Your task to perform on an android device: turn off javascript in the chrome app Image 0: 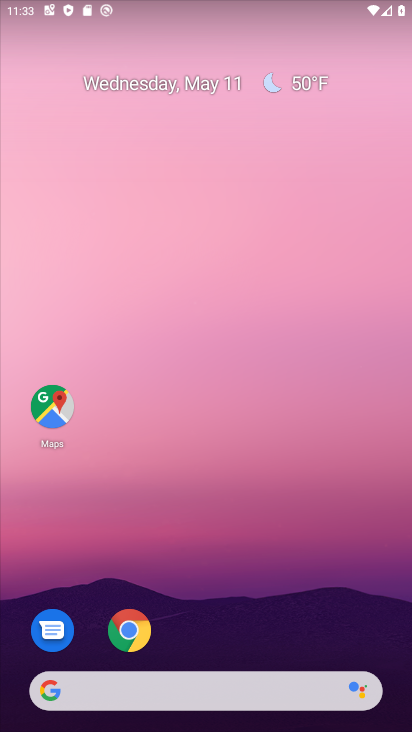
Step 0: click (134, 645)
Your task to perform on an android device: turn off javascript in the chrome app Image 1: 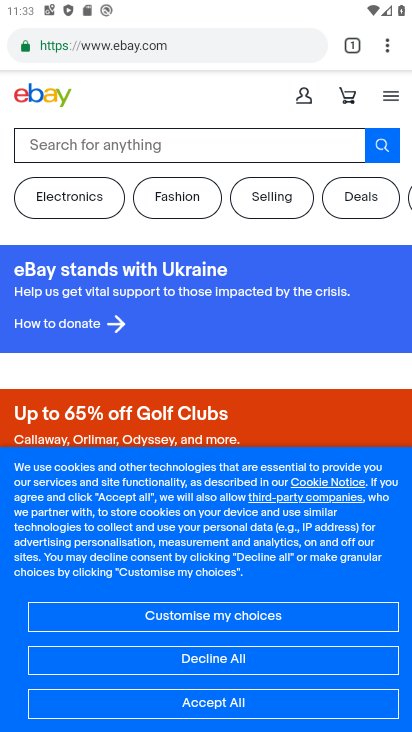
Step 1: click (388, 50)
Your task to perform on an android device: turn off javascript in the chrome app Image 2: 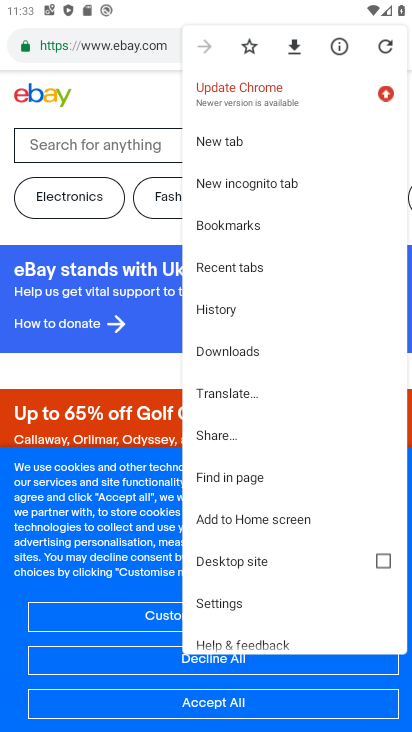
Step 2: click (224, 602)
Your task to perform on an android device: turn off javascript in the chrome app Image 3: 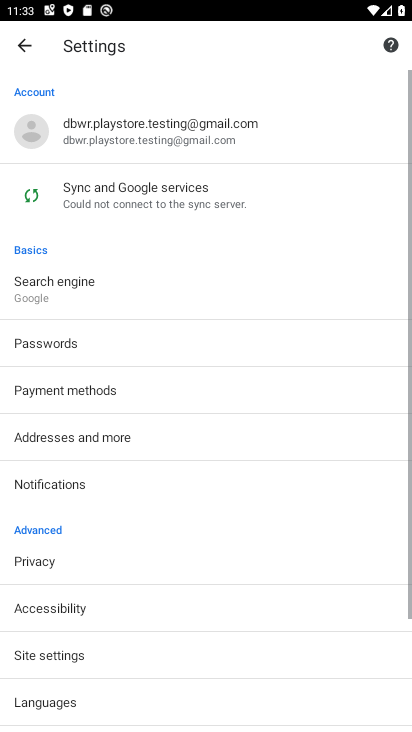
Step 3: drag from (196, 668) to (198, 419)
Your task to perform on an android device: turn off javascript in the chrome app Image 4: 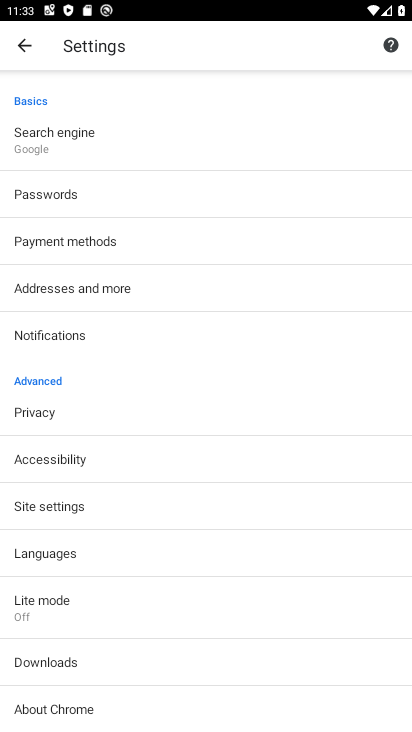
Step 4: click (63, 505)
Your task to perform on an android device: turn off javascript in the chrome app Image 5: 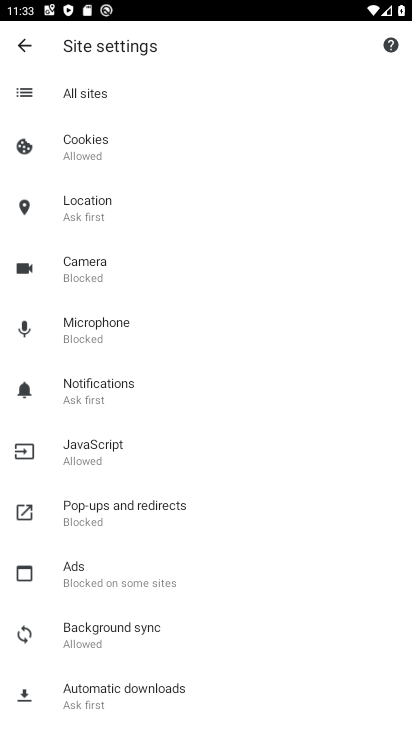
Step 5: click (87, 450)
Your task to perform on an android device: turn off javascript in the chrome app Image 6: 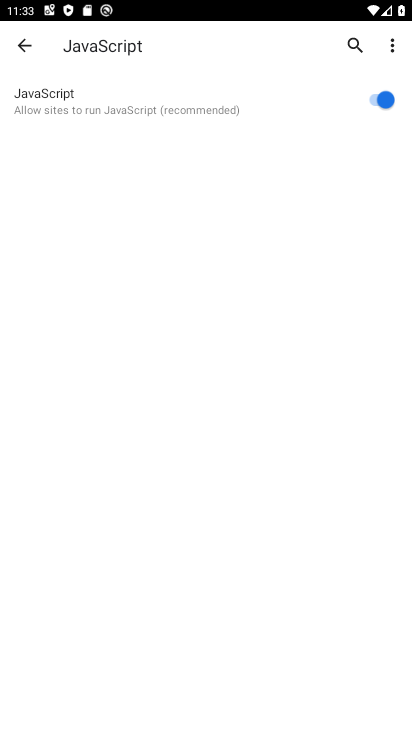
Step 6: click (377, 98)
Your task to perform on an android device: turn off javascript in the chrome app Image 7: 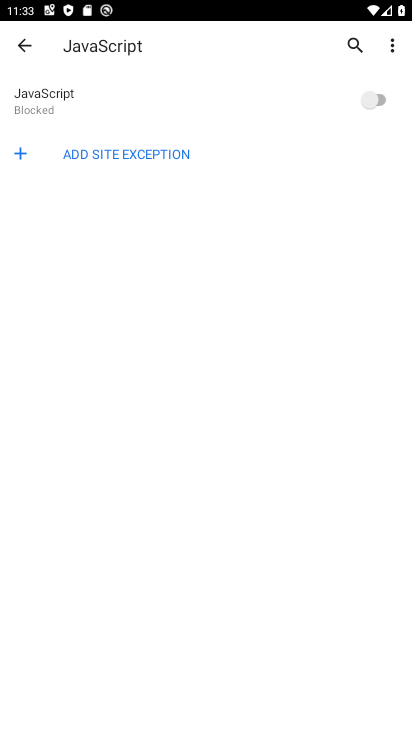
Step 7: task complete